Your task to perform on an android device: Go to Amazon Image 0: 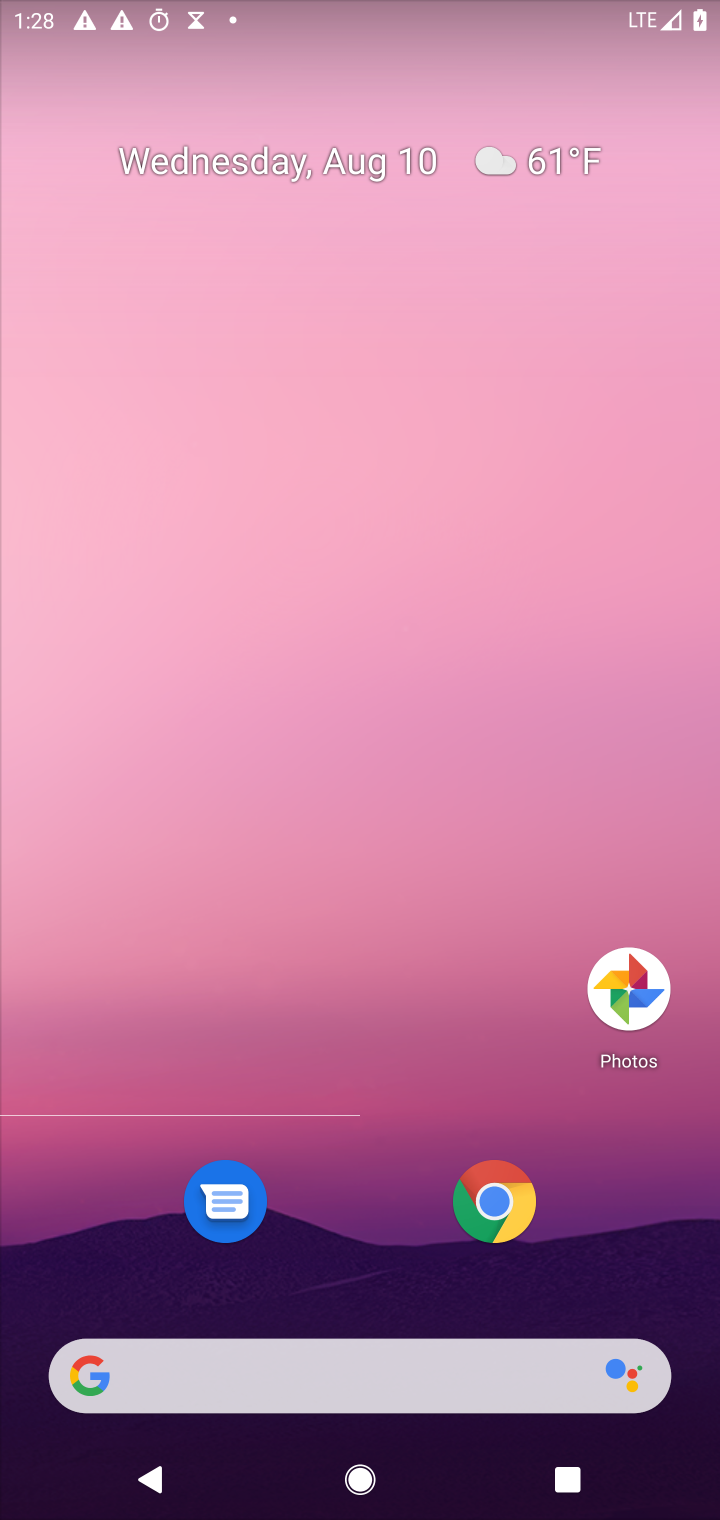
Step 0: press home button
Your task to perform on an android device: Go to Amazon Image 1: 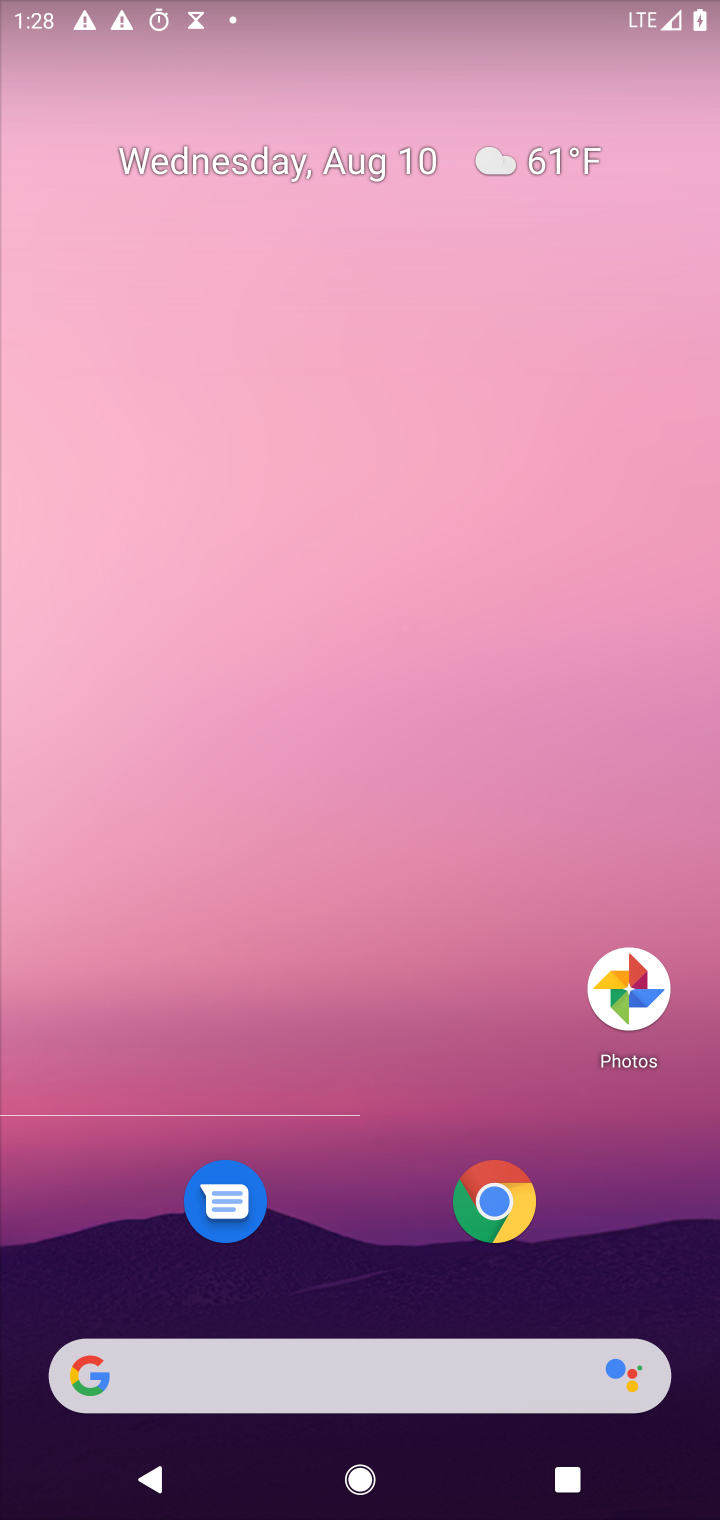
Step 1: drag from (341, 1203) to (188, 101)
Your task to perform on an android device: Go to Amazon Image 2: 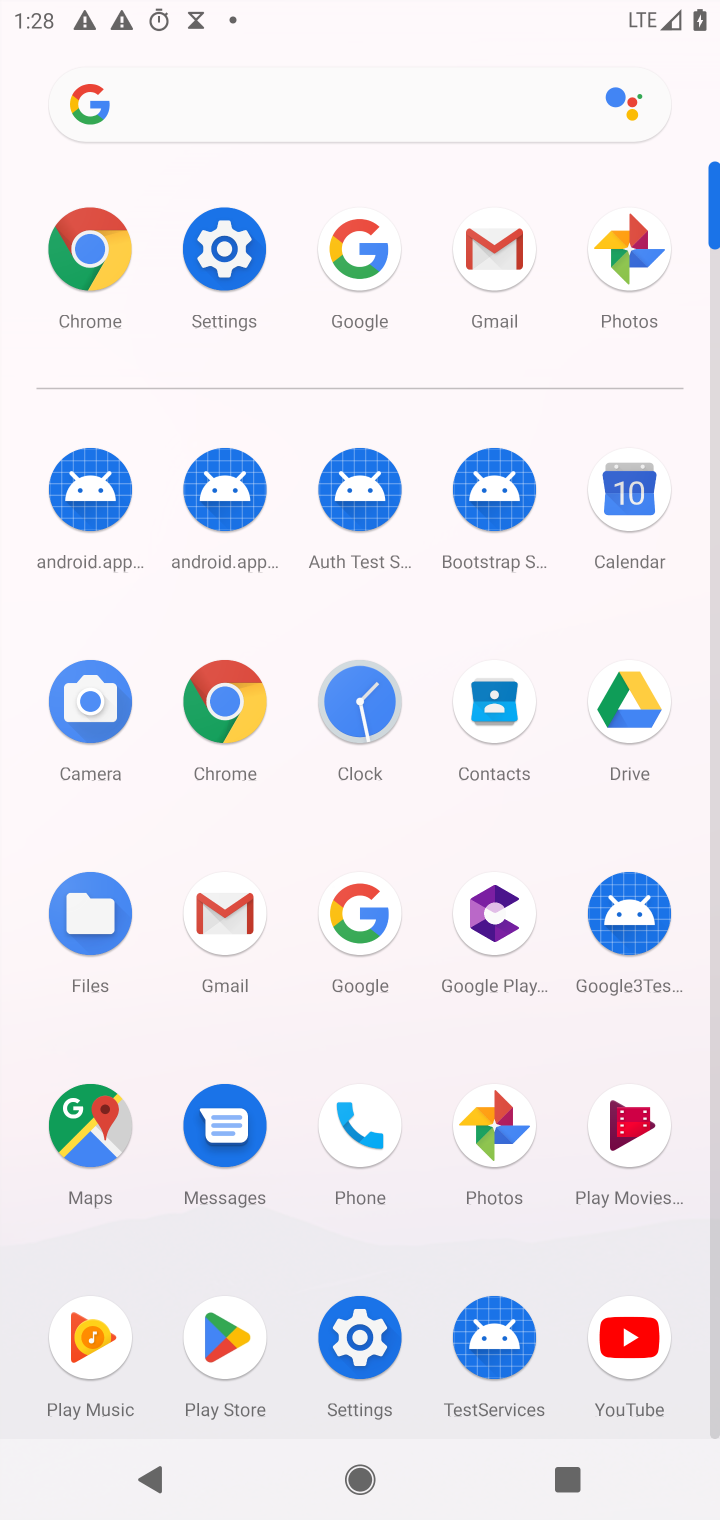
Step 2: click (373, 259)
Your task to perform on an android device: Go to Amazon Image 3: 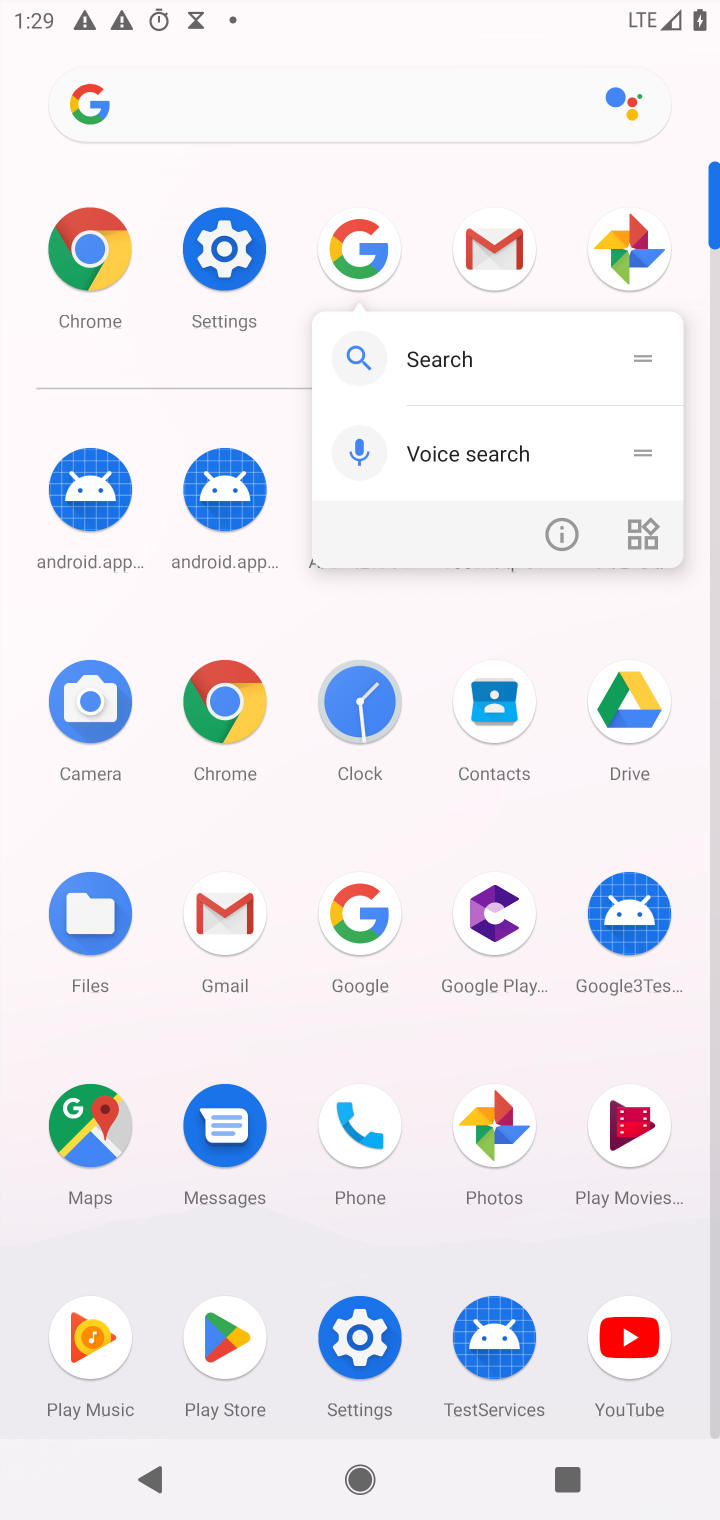
Step 3: click (370, 255)
Your task to perform on an android device: Go to Amazon Image 4: 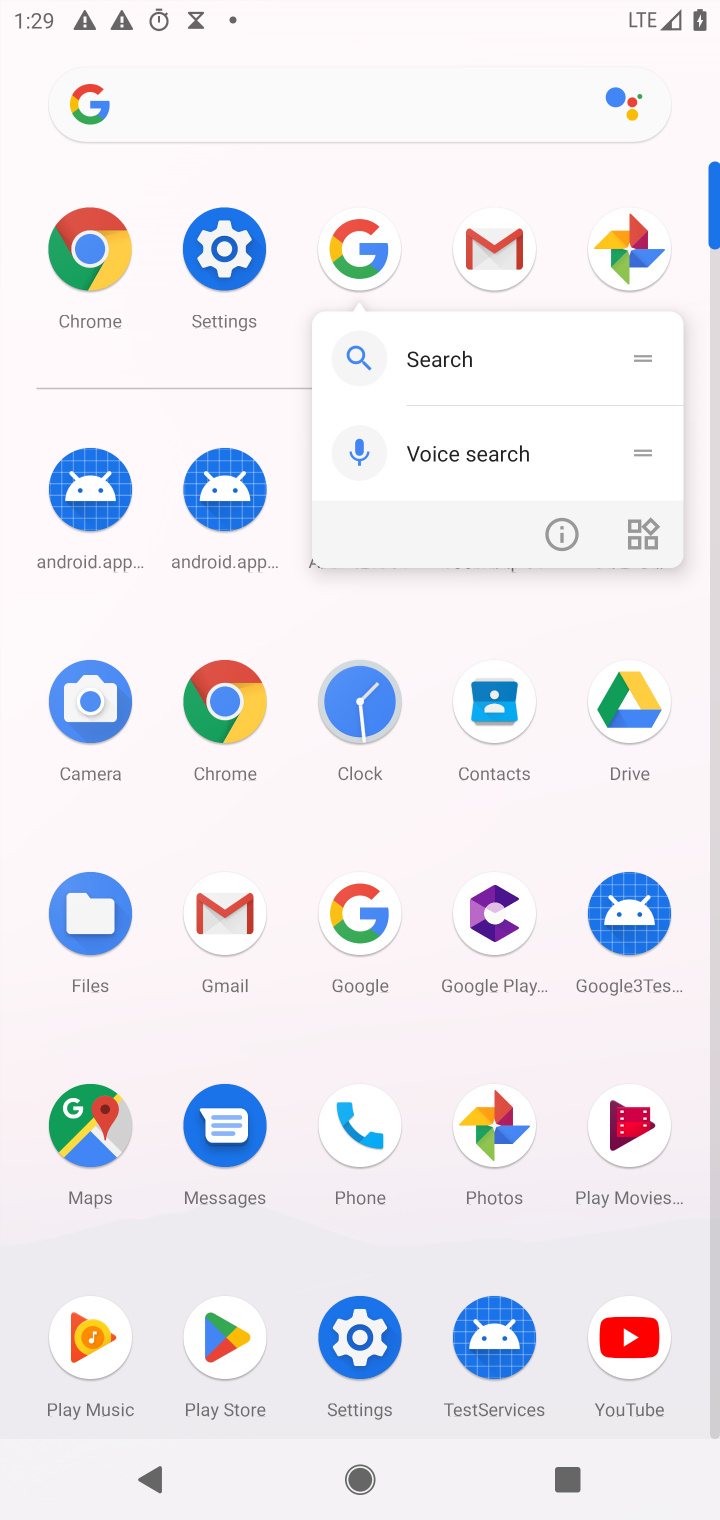
Step 4: click (362, 252)
Your task to perform on an android device: Go to Amazon Image 5: 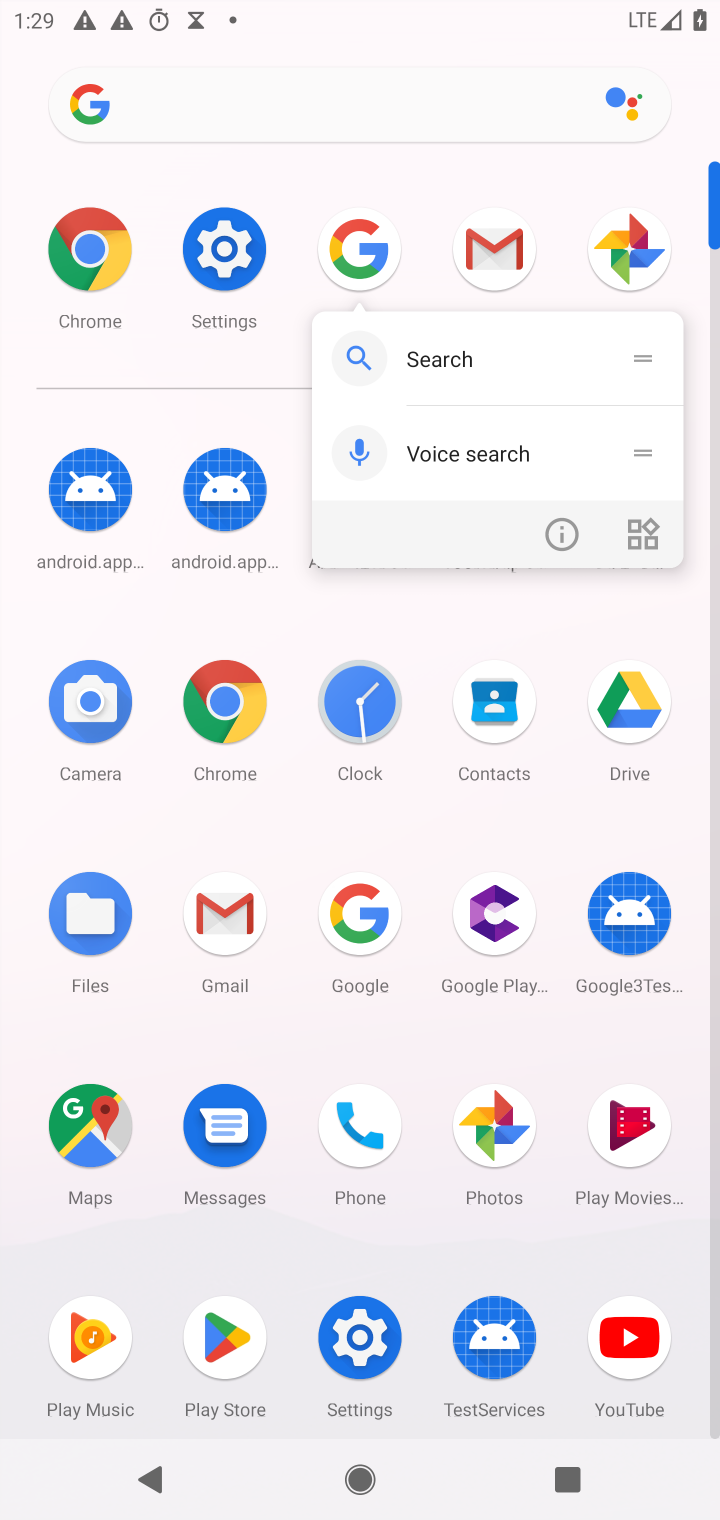
Step 5: click (362, 249)
Your task to perform on an android device: Go to Amazon Image 6: 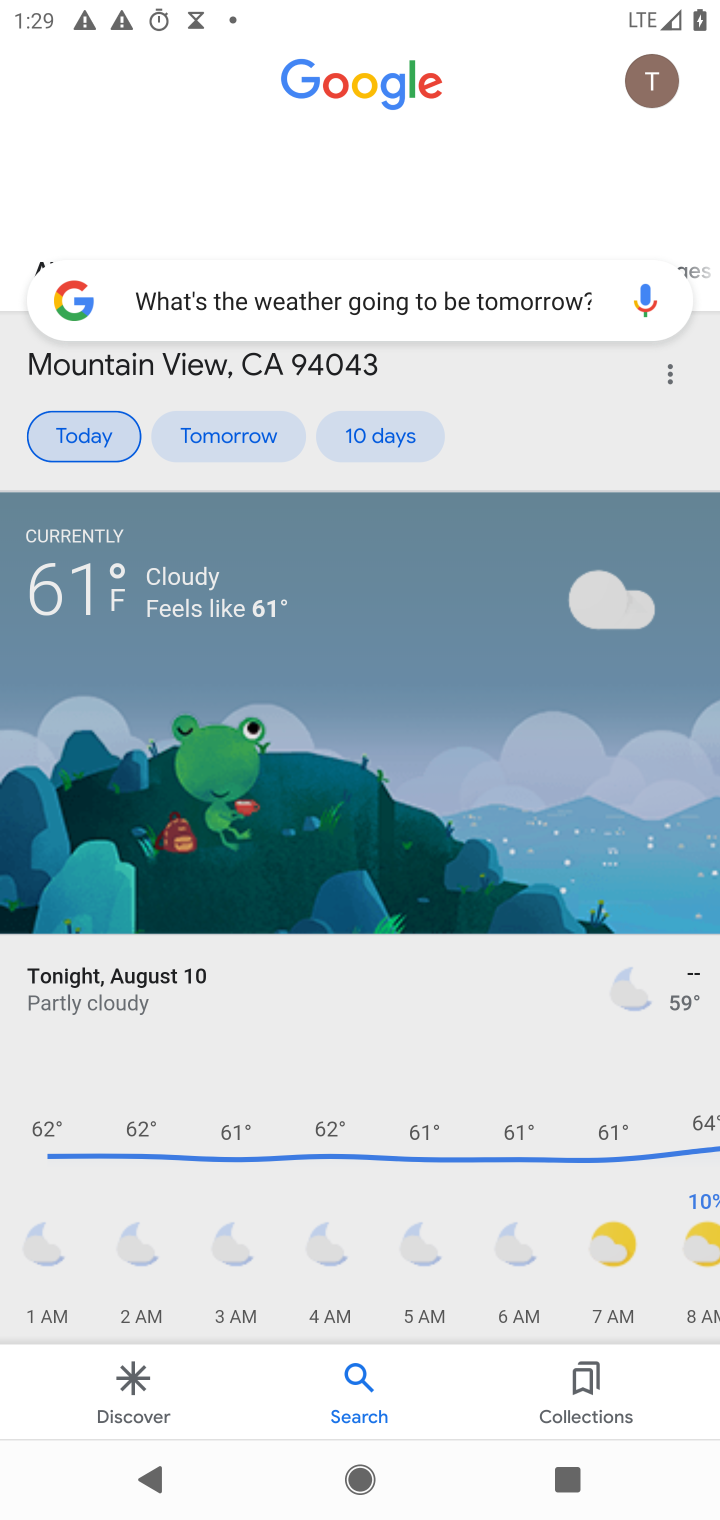
Step 6: click (65, 293)
Your task to perform on an android device: Go to Amazon Image 7: 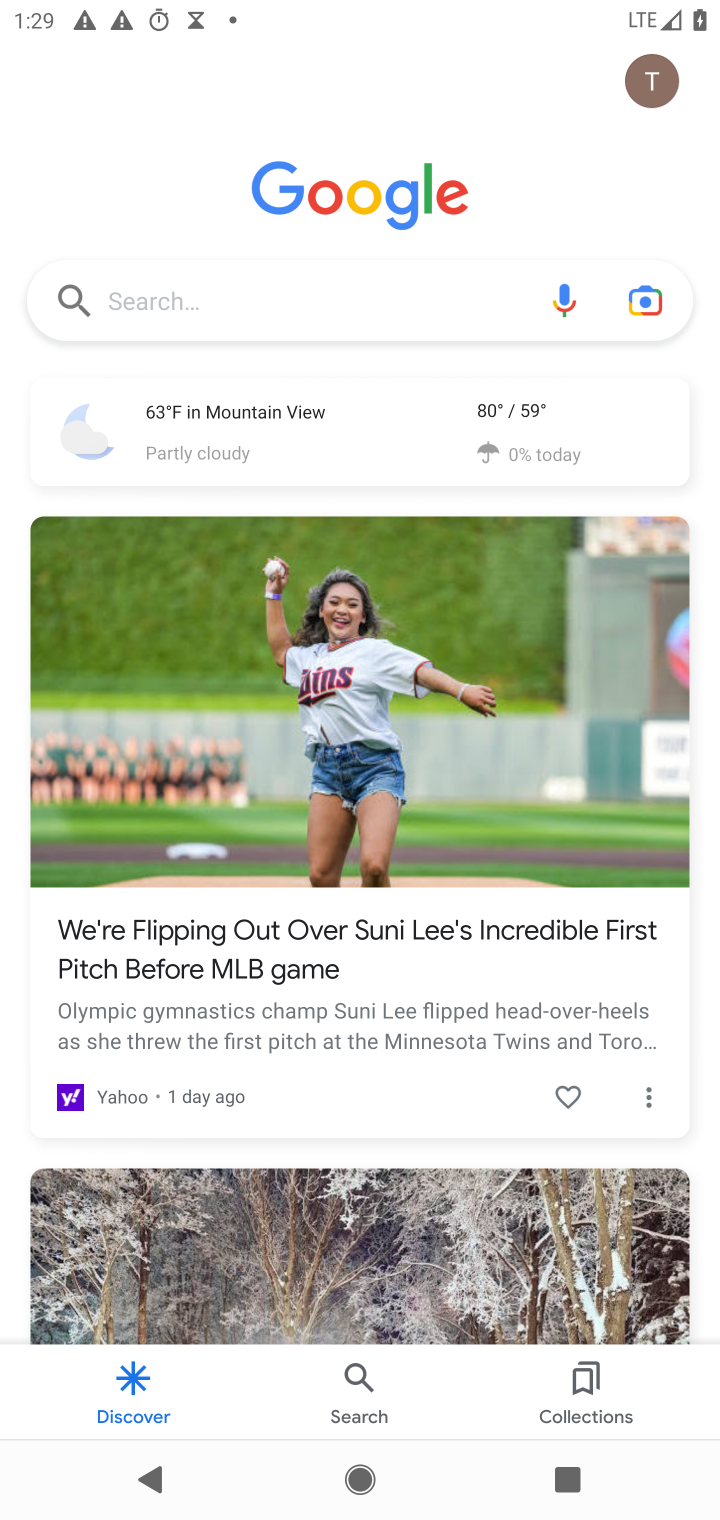
Step 7: type " Amazon"
Your task to perform on an android device: Go to Amazon Image 8: 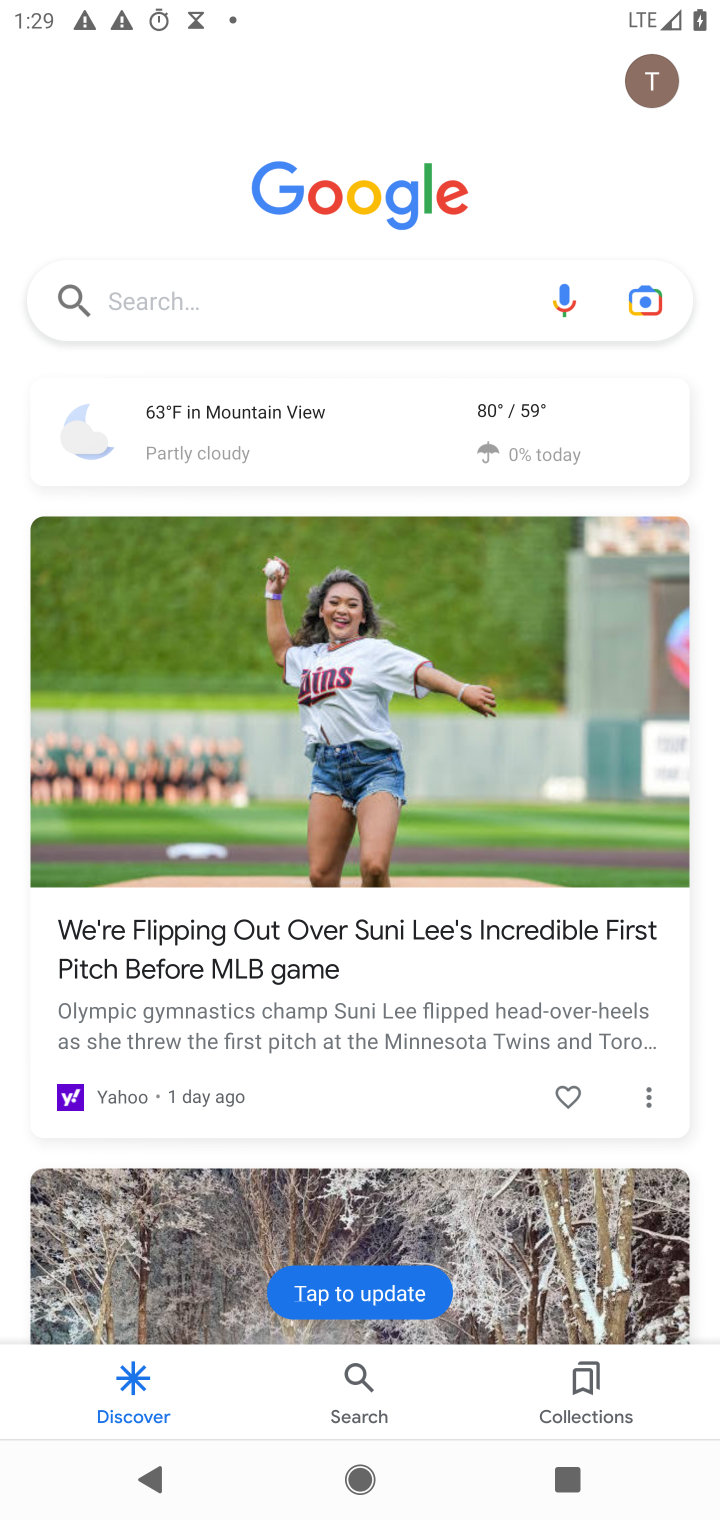
Step 8: click (230, 295)
Your task to perform on an android device: Go to Amazon Image 9: 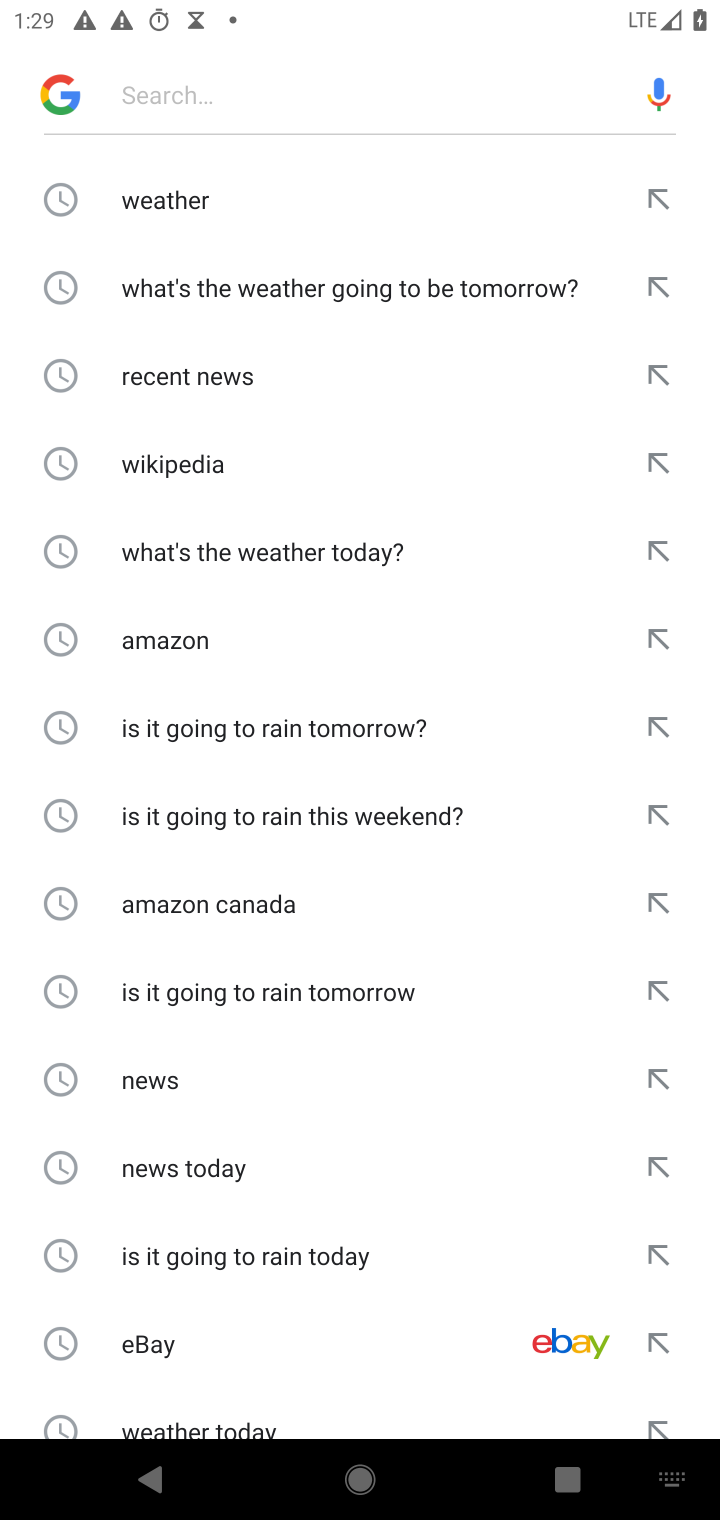
Step 9: type " Amazon"
Your task to perform on an android device: Go to Amazon Image 10: 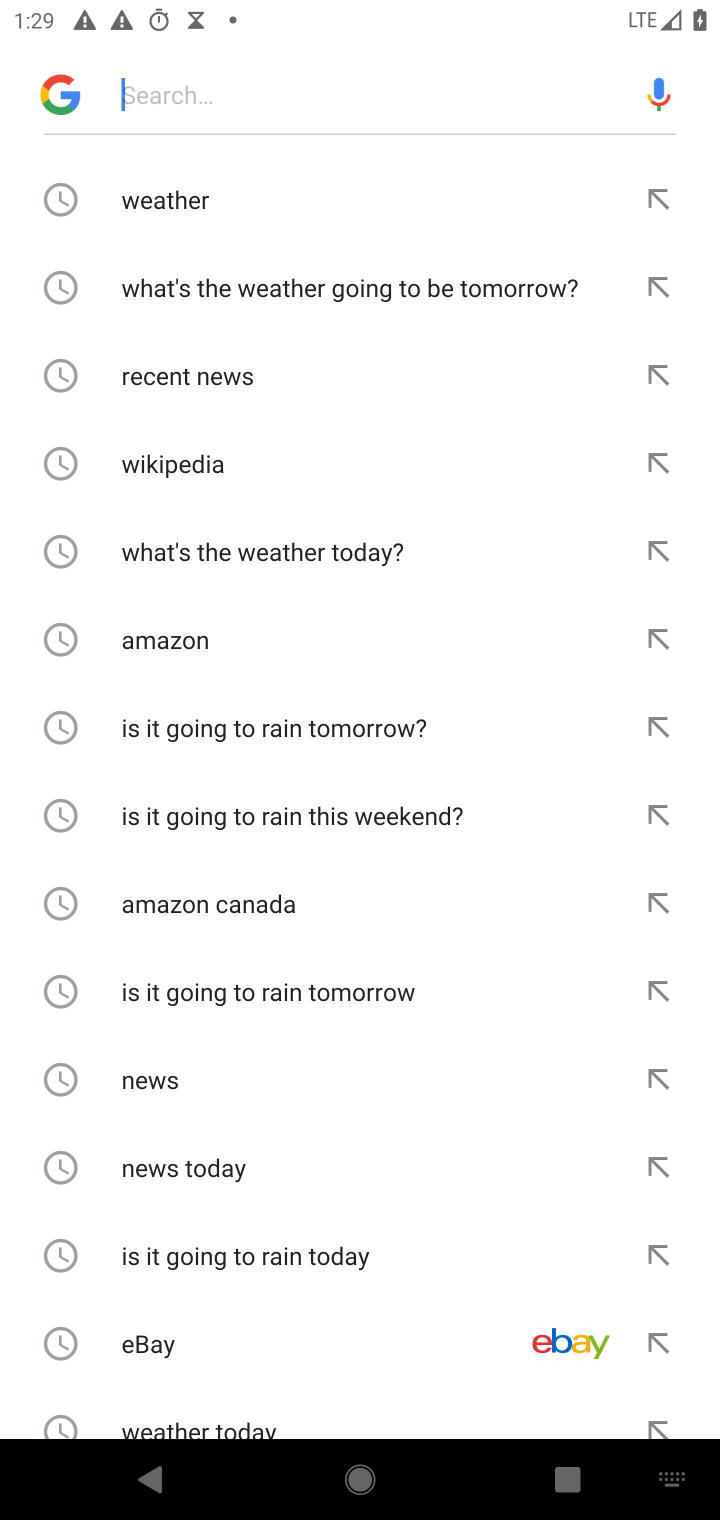
Step 10: click (159, 88)
Your task to perform on an android device: Go to Amazon Image 11: 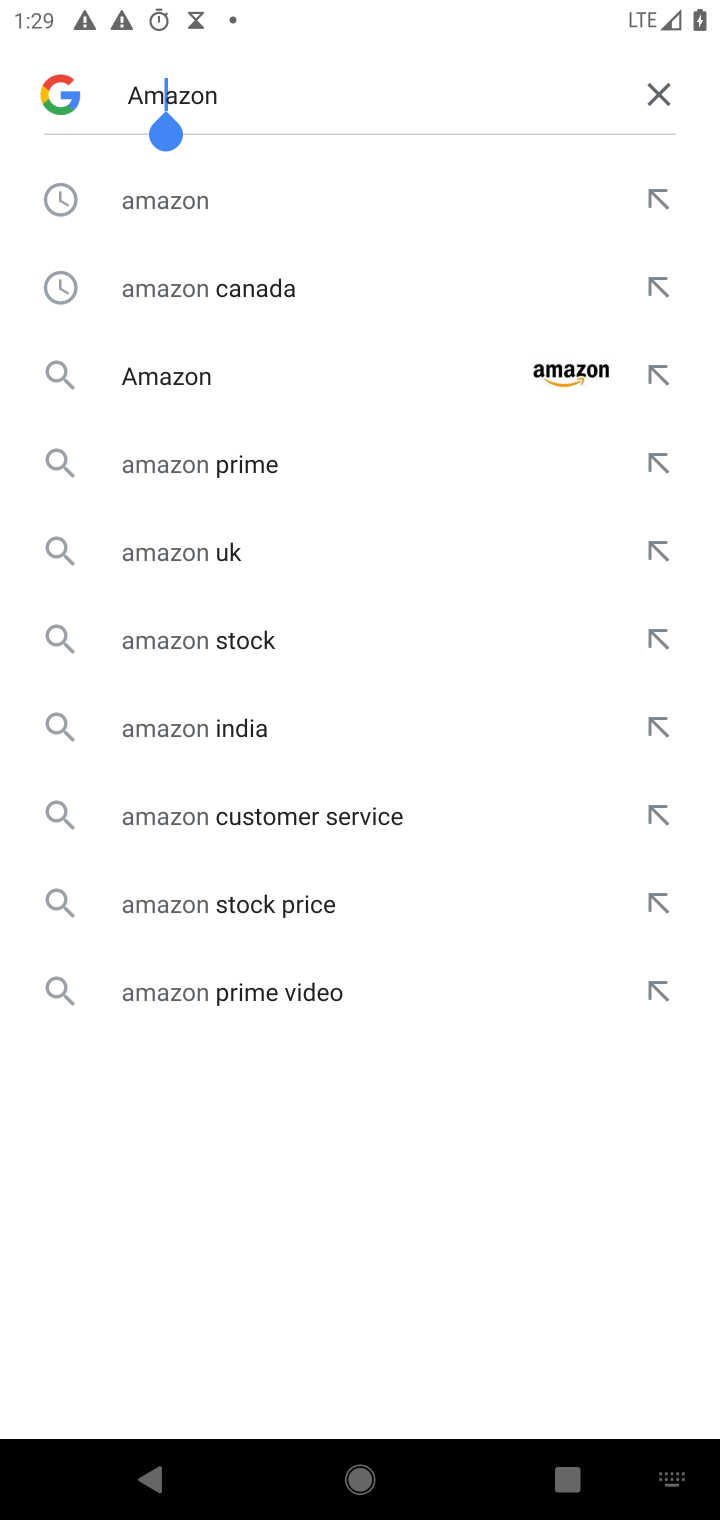
Step 11: press enter
Your task to perform on an android device: Go to Amazon Image 12: 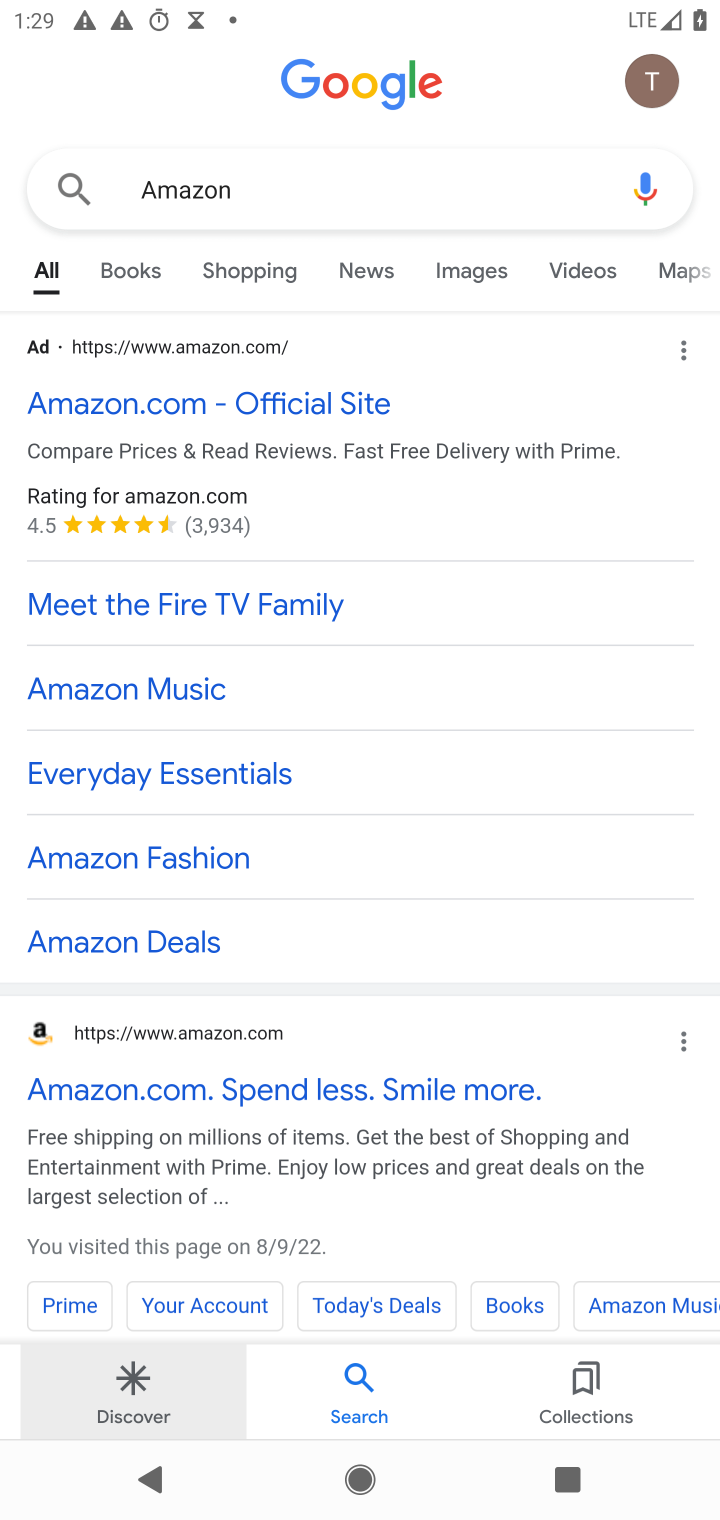
Step 12: click (153, 1092)
Your task to perform on an android device: Go to Amazon Image 13: 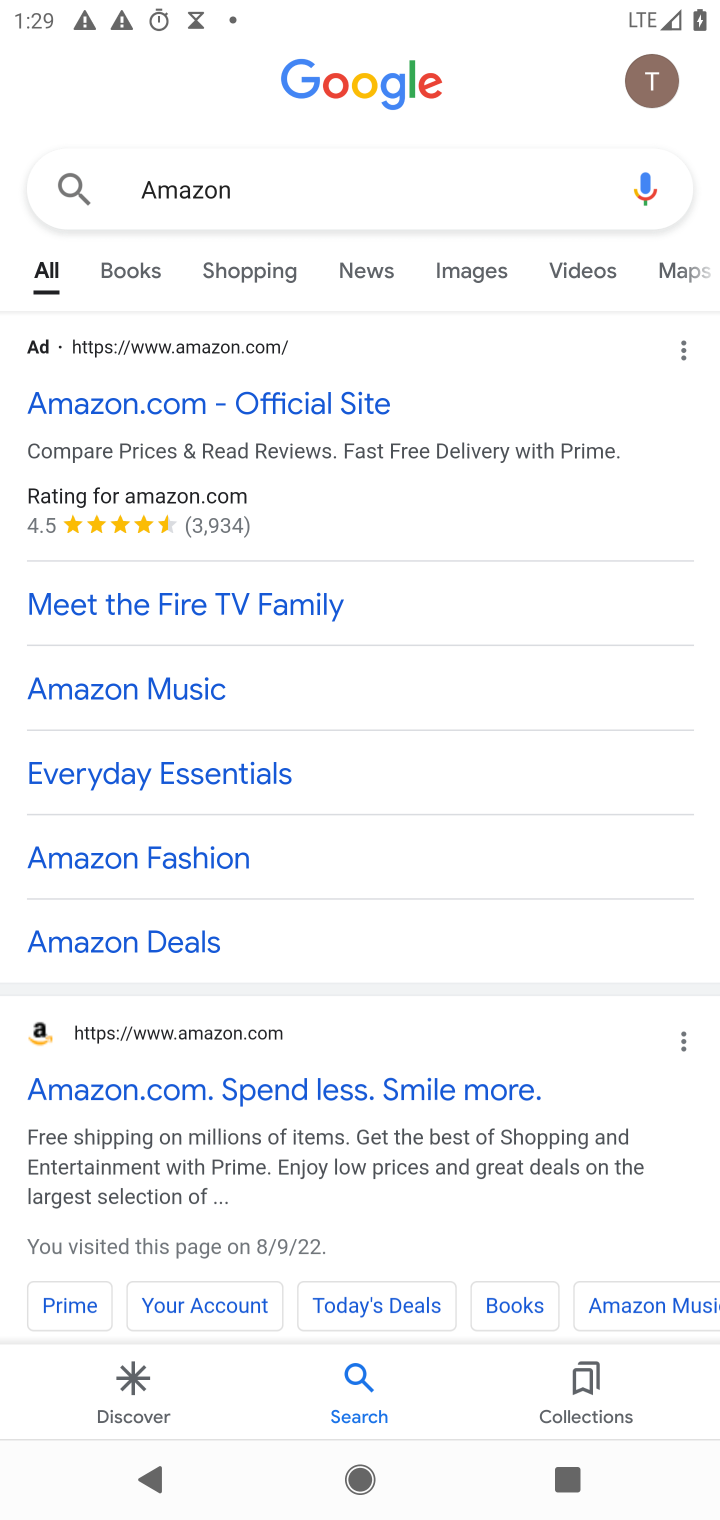
Step 13: click (152, 1090)
Your task to perform on an android device: Go to Amazon Image 14: 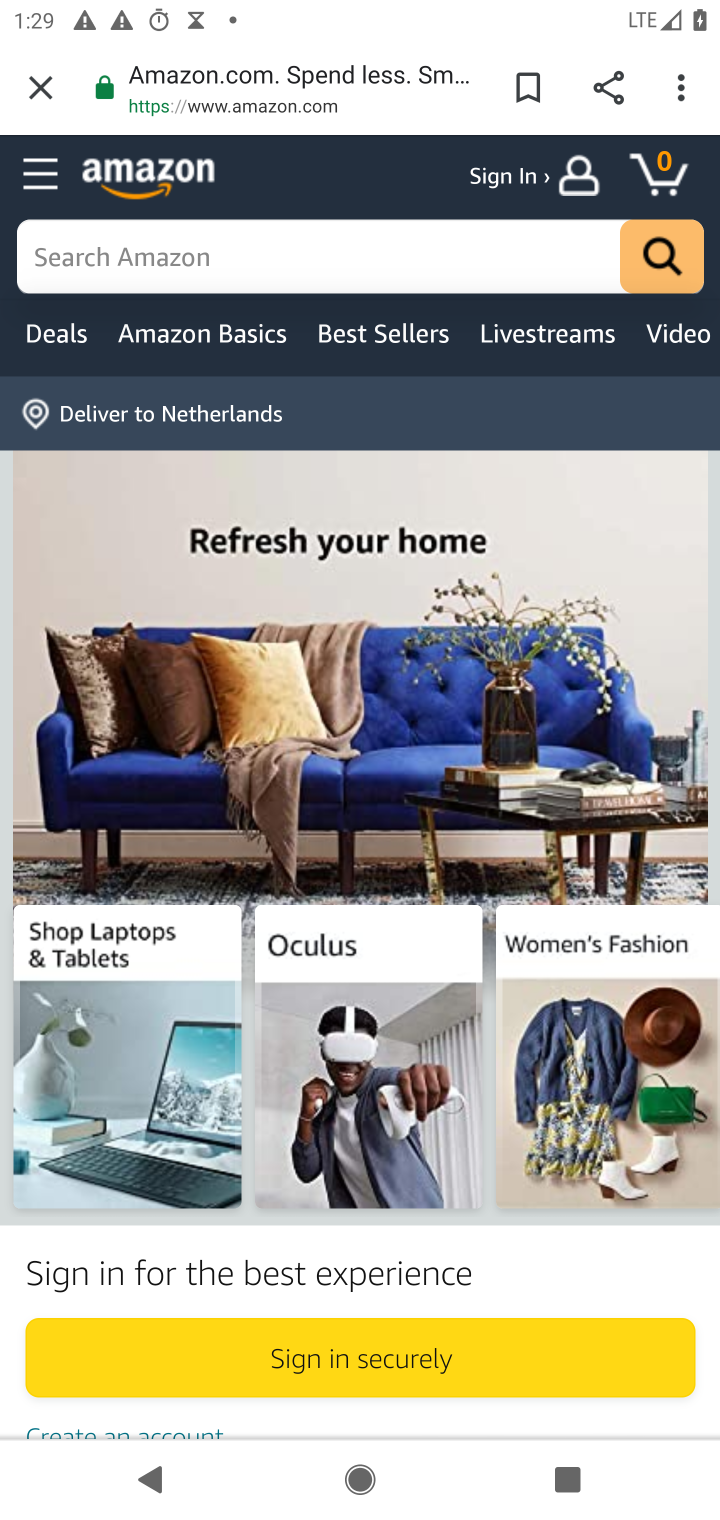
Step 14: task complete